Your task to perform on an android device: open app "Venmo" Image 0: 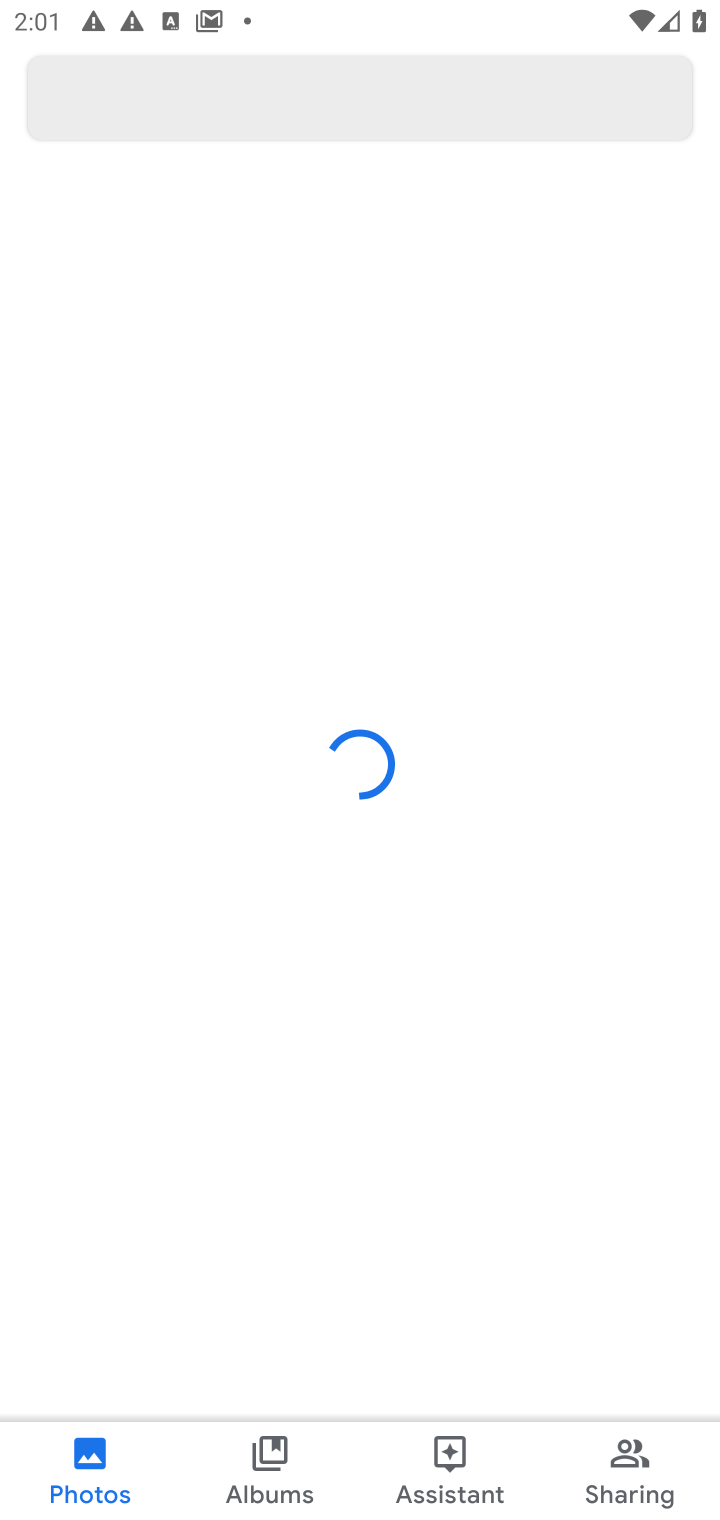
Step 0: press home button
Your task to perform on an android device: open app "Venmo" Image 1: 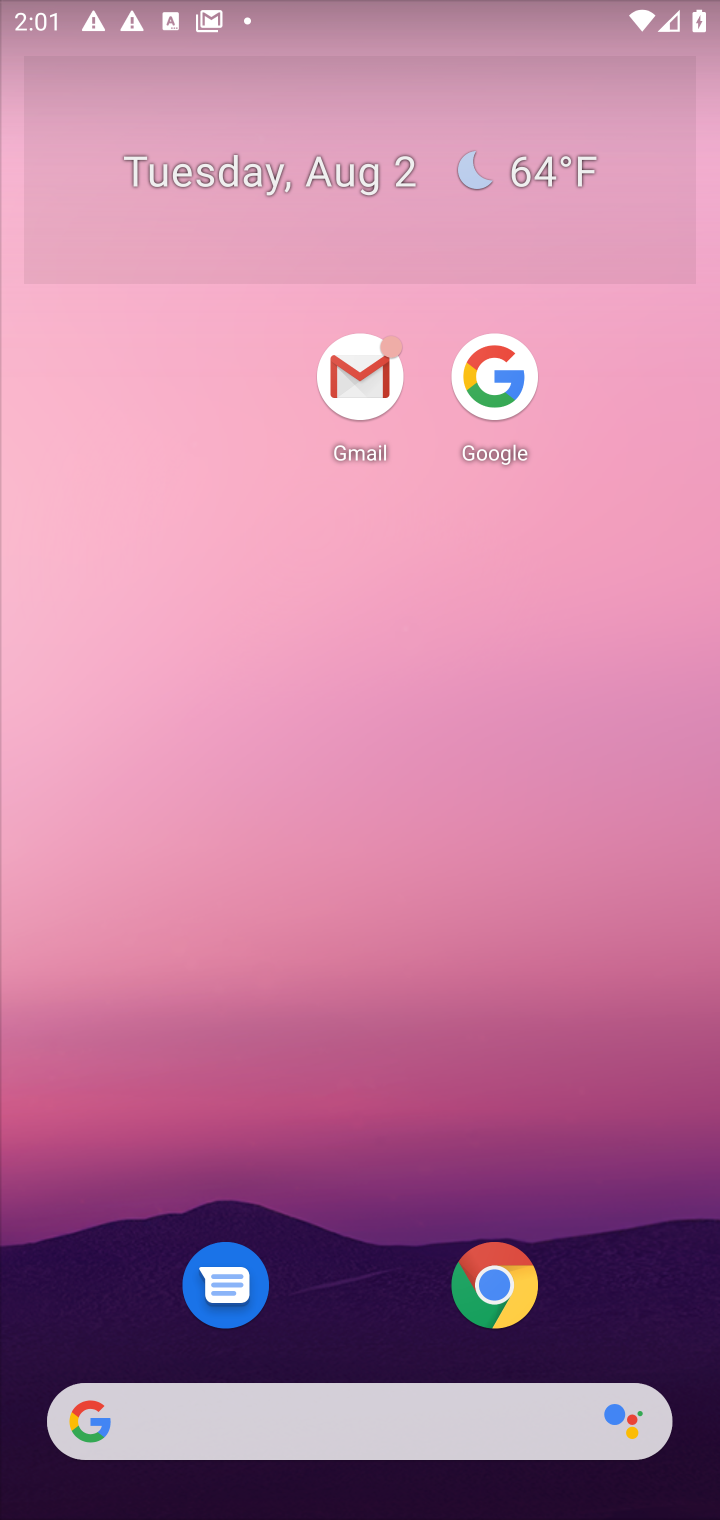
Step 1: drag from (668, 1235) to (611, 233)
Your task to perform on an android device: open app "Venmo" Image 2: 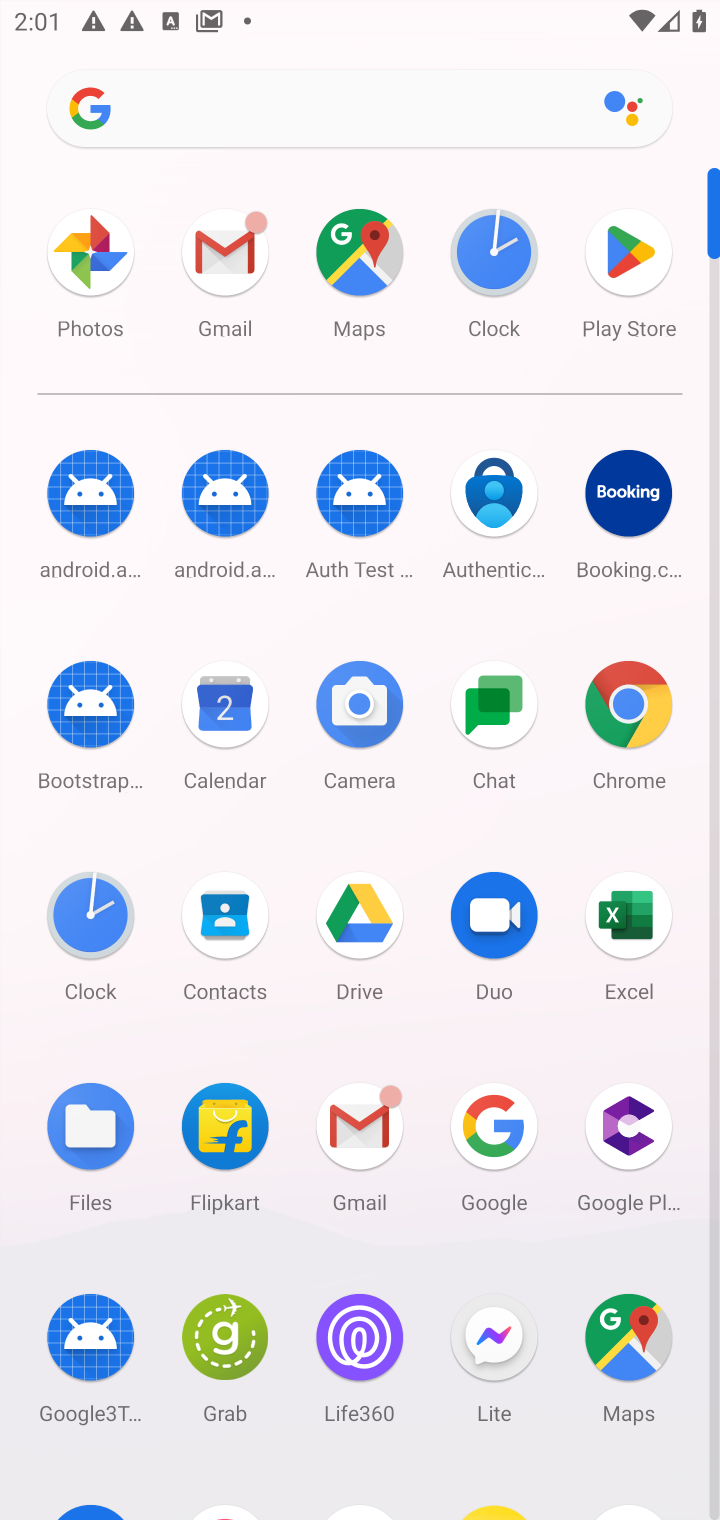
Step 2: drag from (420, 1024) to (401, 519)
Your task to perform on an android device: open app "Venmo" Image 3: 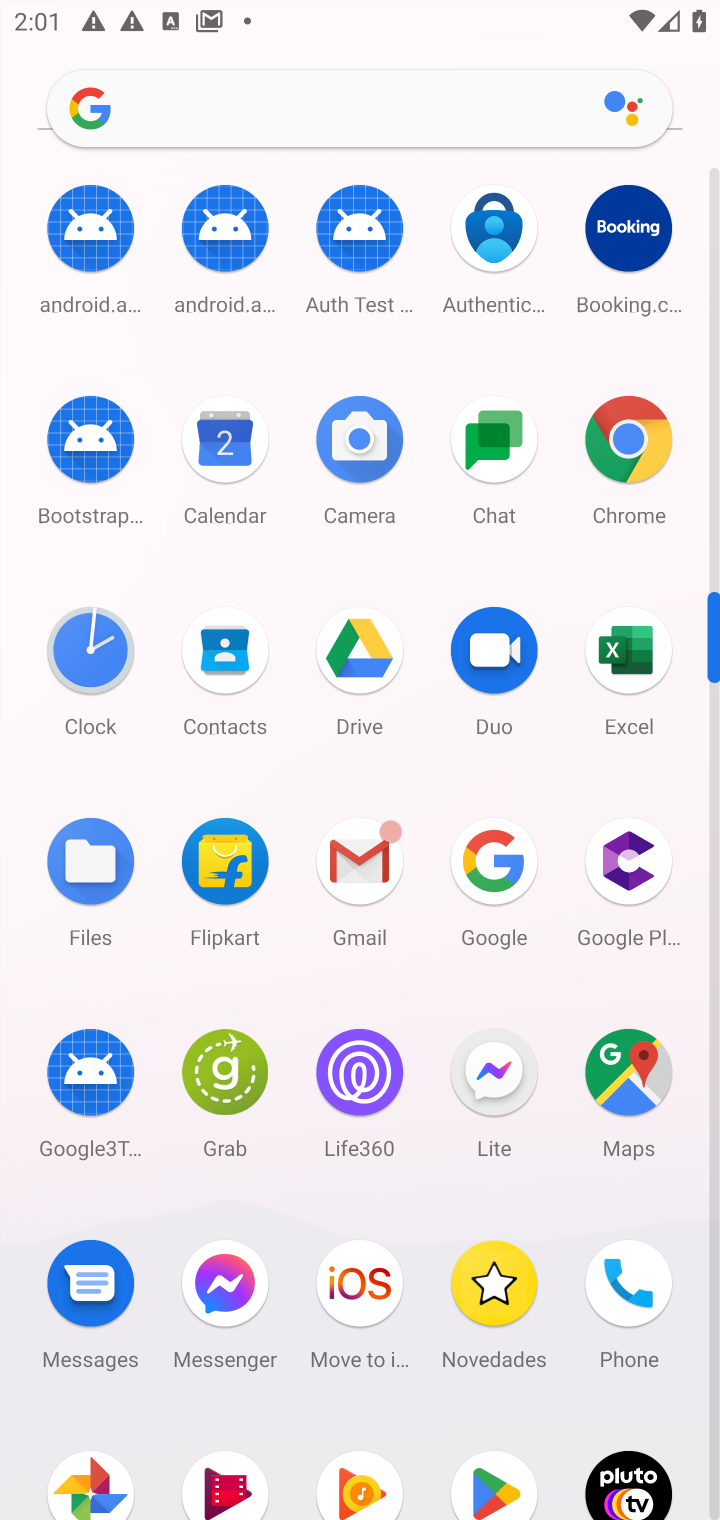
Step 3: click (494, 1478)
Your task to perform on an android device: open app "Venmo" Image 4: 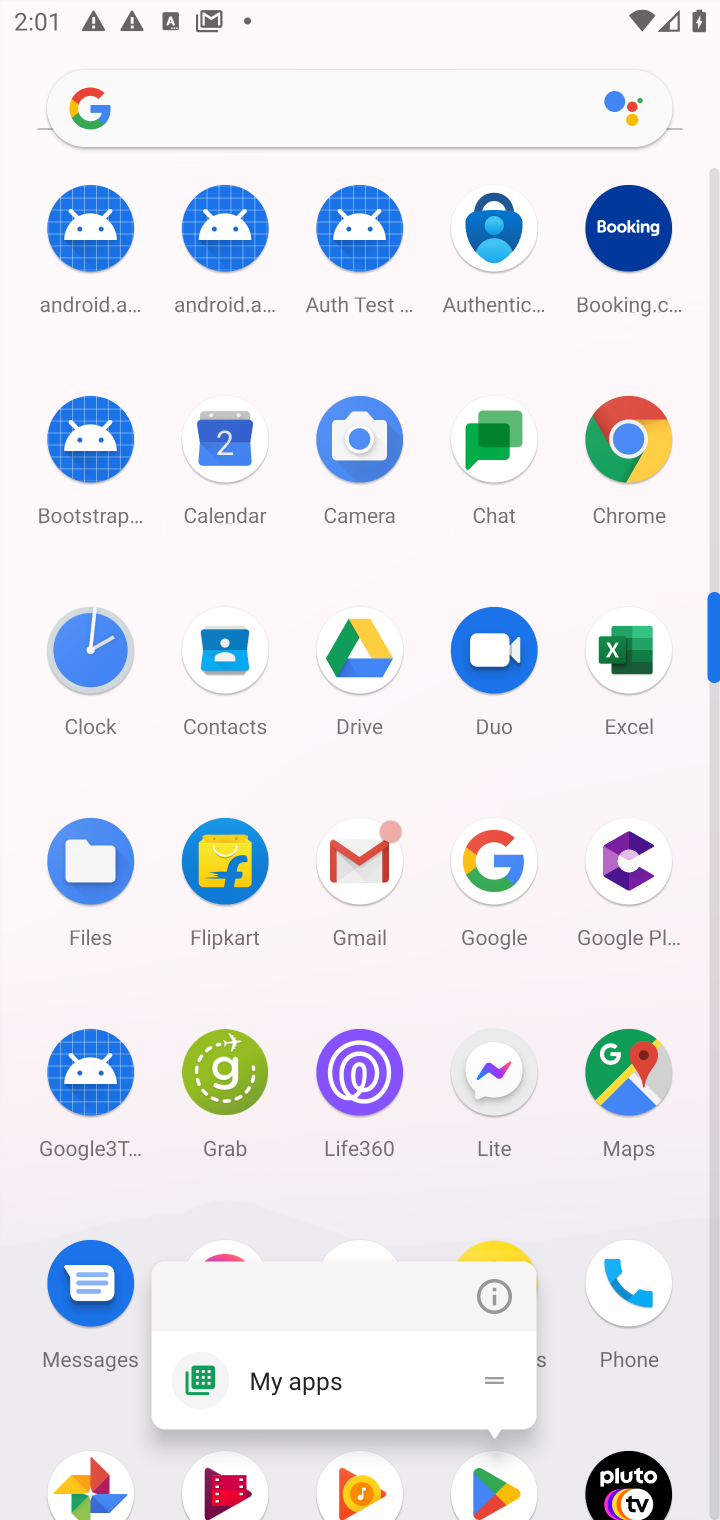
Step 4: click (501, 1473)
Your task to perform on an android device: open app "Venmo" Image 5: 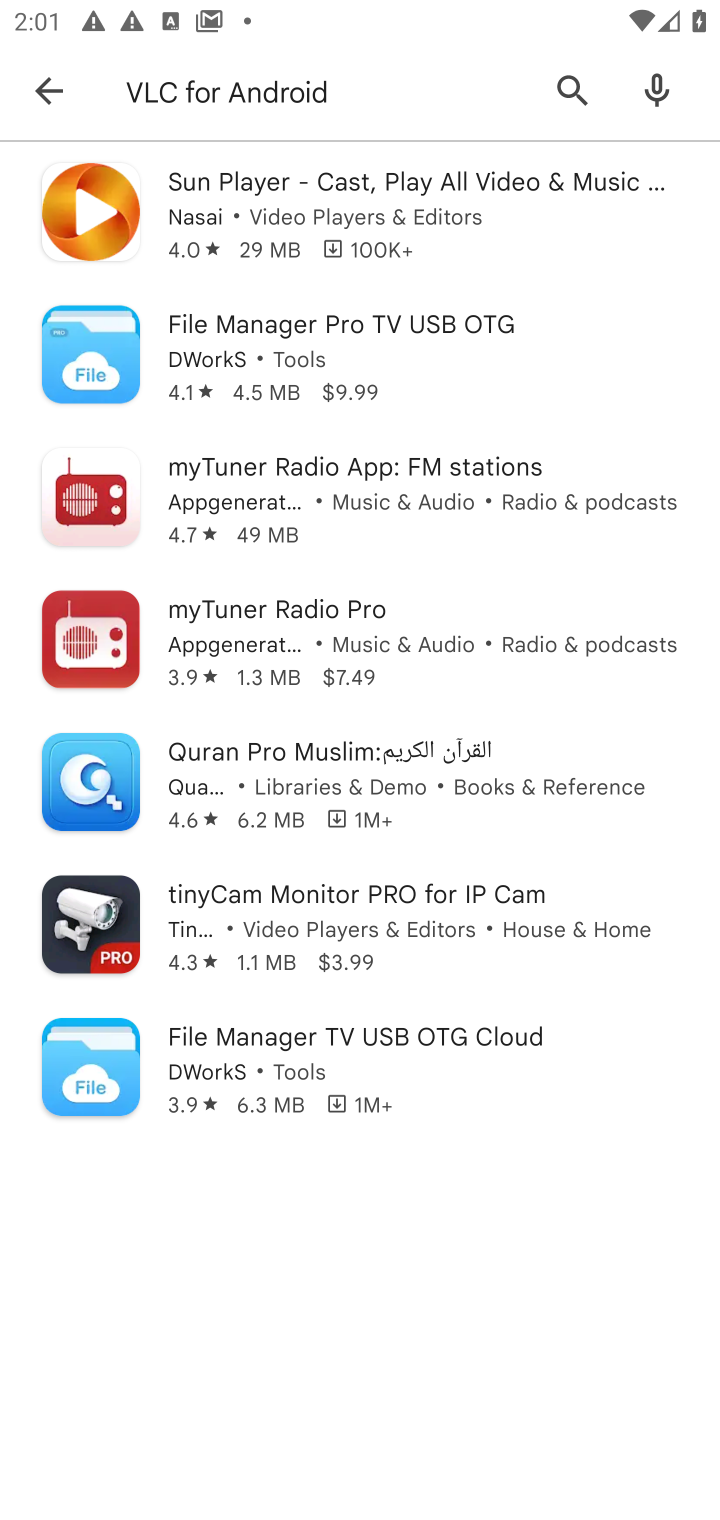
Step 5: click (368, 95)
Your task to perform on an android device: open app "Venmo" Image 6: 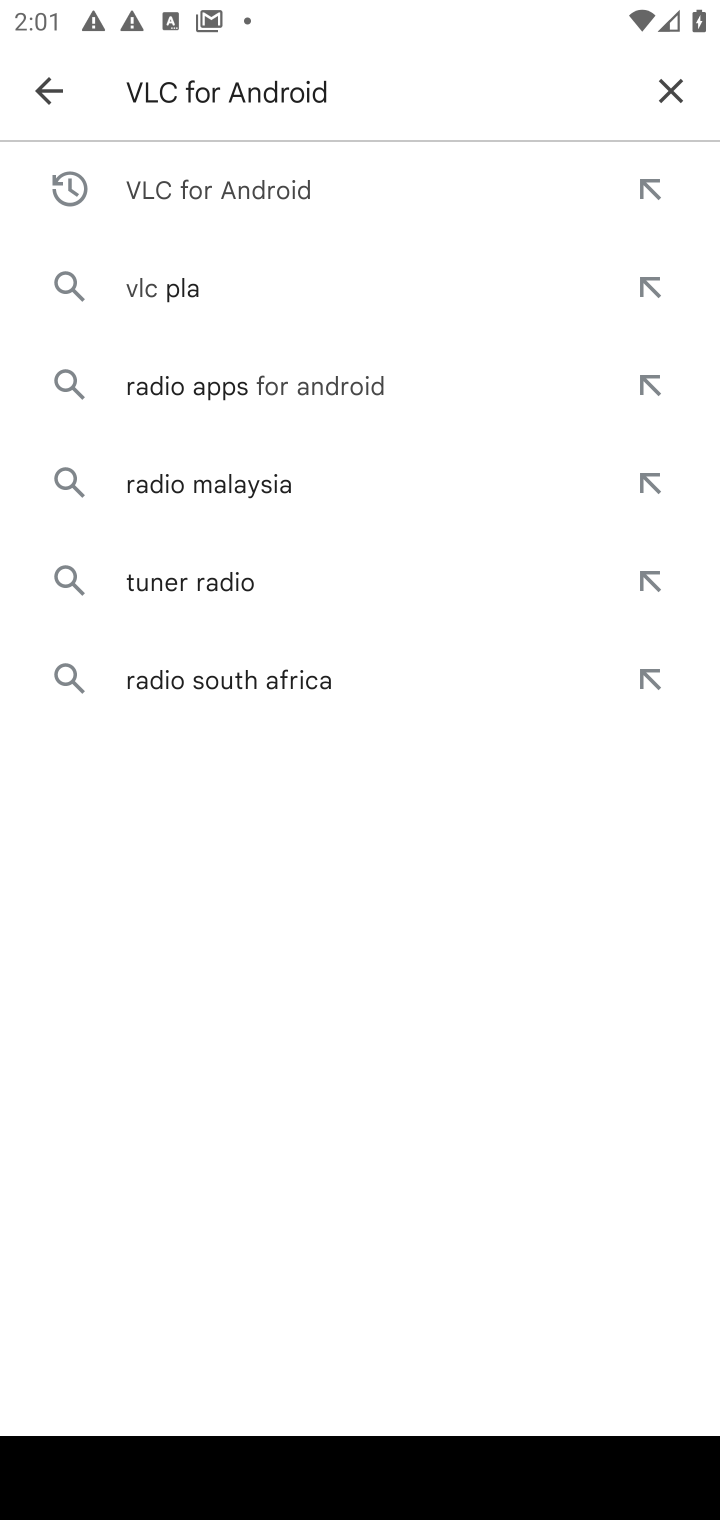
Step 6: click (666, 75)
Your task to perform on an android device: open app "Venmo" Image 7: 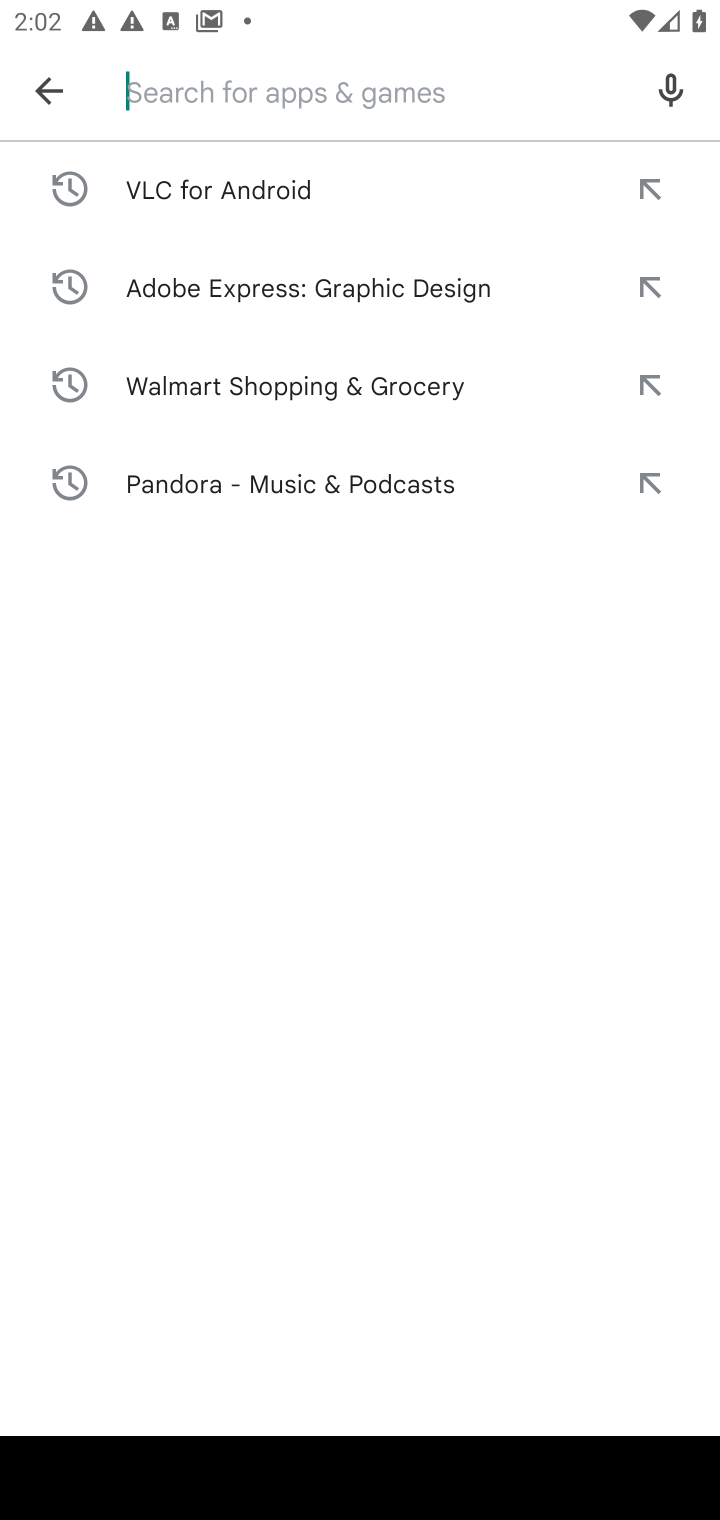
Step 7: type "Venmo"
Your task to perform on an android device: open app "Venmo" Image 8: 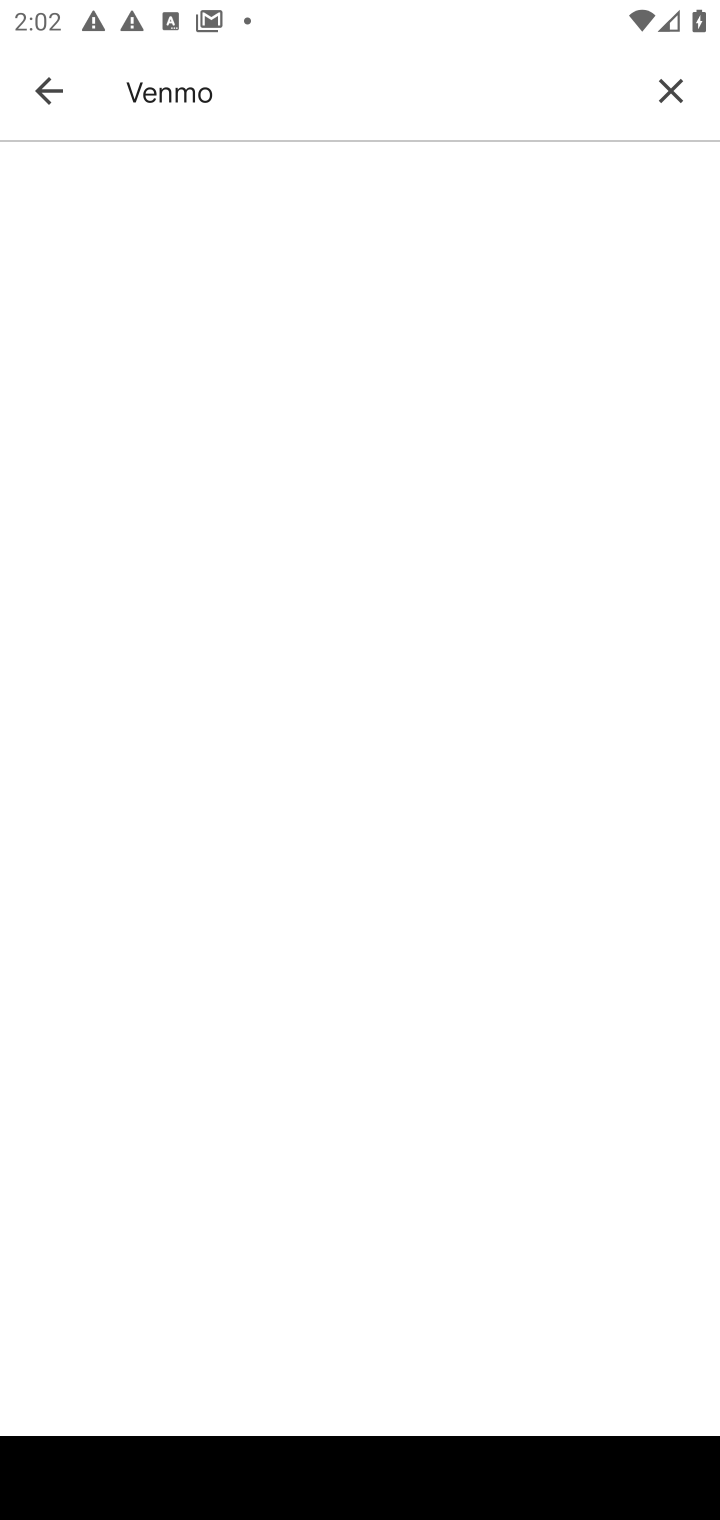
Step 8: press enter
Your task to perform on an android device: open app "Venmo" Image 9: 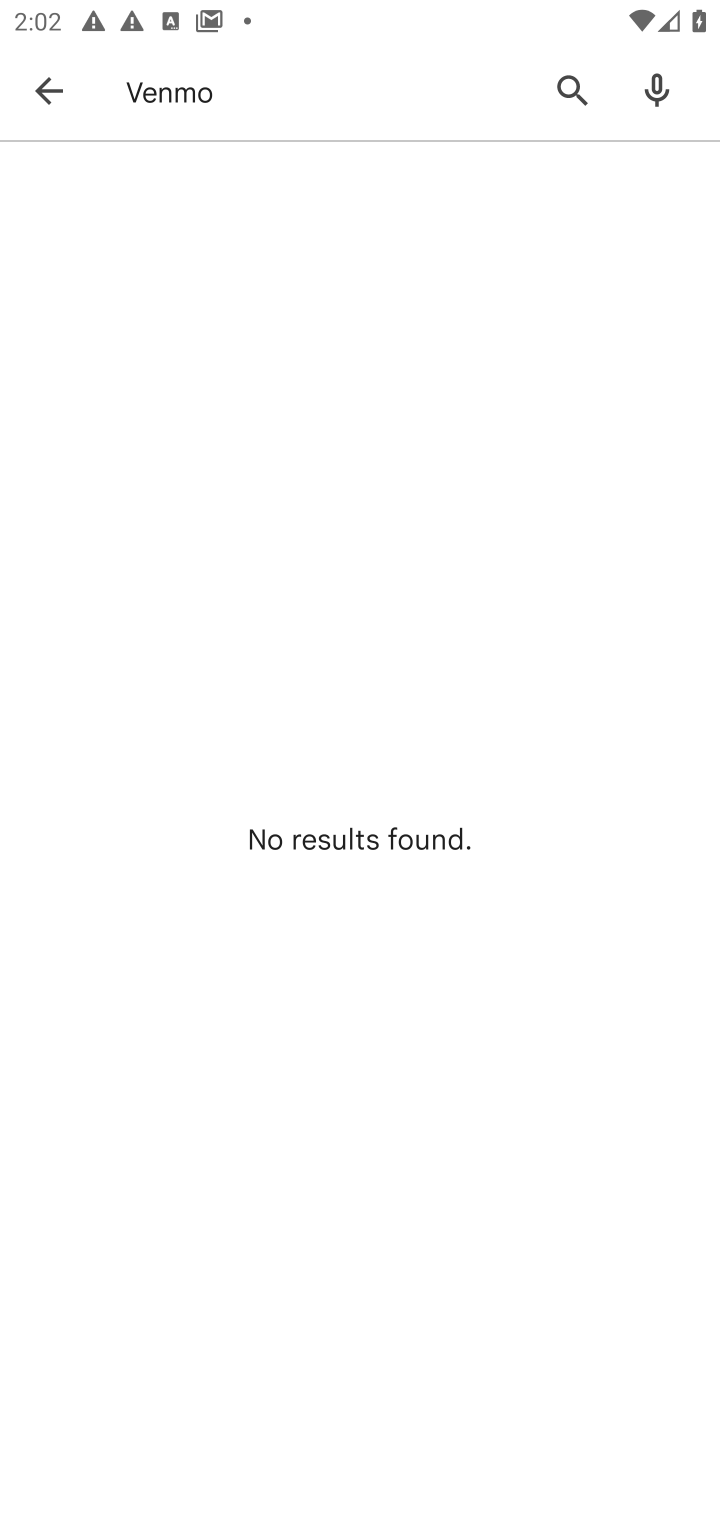
Step 9: task complete